Your task to perform on an android device: create a new album in the google photos Image 0: 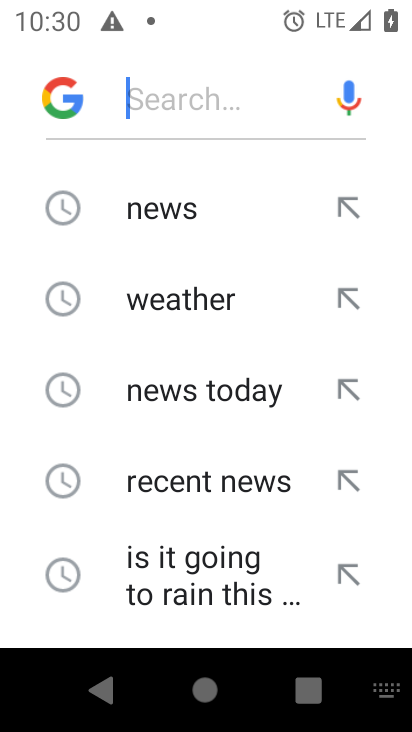
Step 0: press home button
Your task to perform on an android device: create a new album in the google photos Image 1: 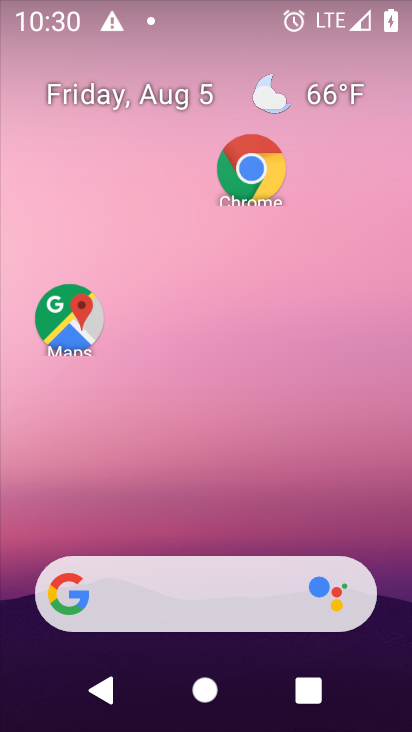
Step 1: drag from (179, 480) to (157, 125)
Your task to perform on an android device: create a new album in the google photos Image 2: 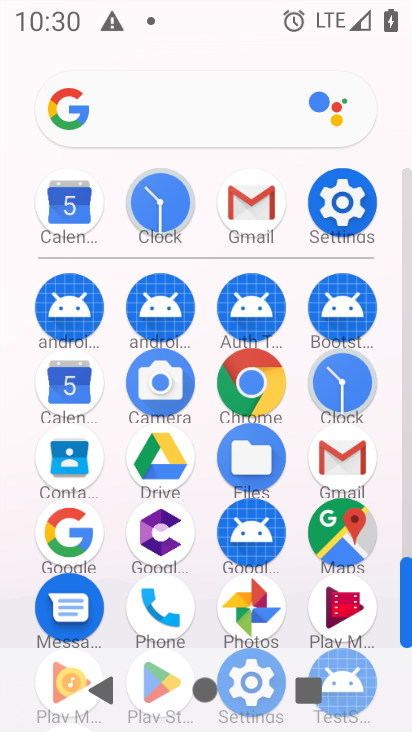
Step 2: click (232, 590)
Your task to perform on an android device: create a new album in the google photos Image 3: 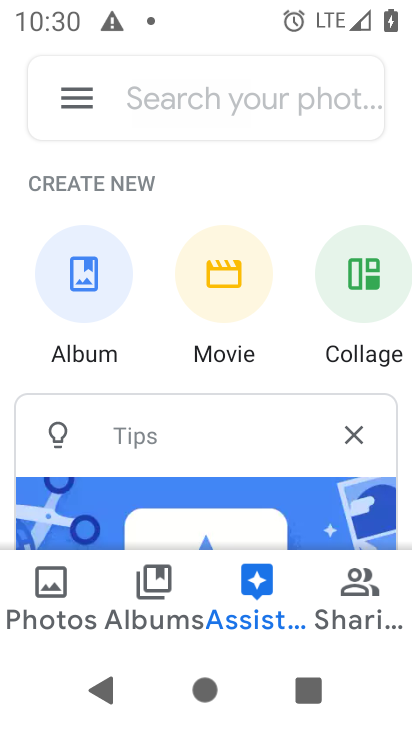
Step 3: click (60, 578)
Your task to perform on an android device: create a new album in the google photos Image 4: 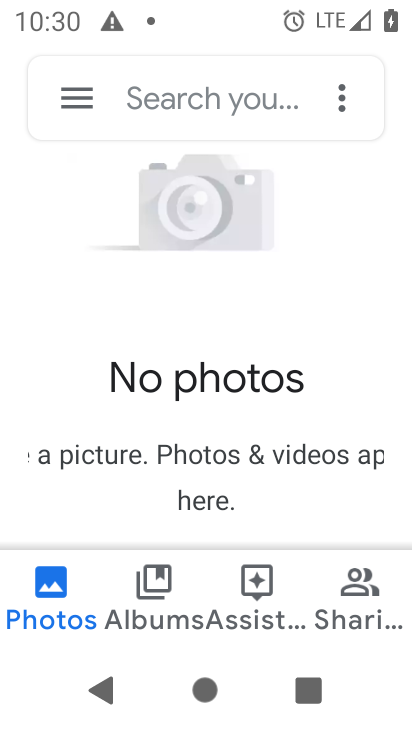
Step 4: click (343, 94)
Your task to perform on an android device: create a new album in the google photos Image 5: 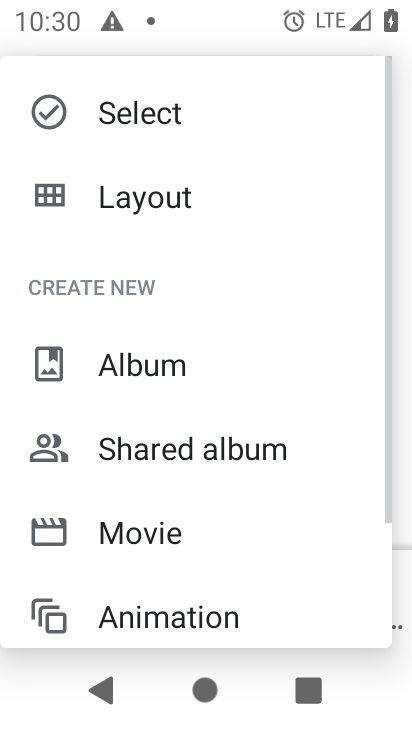
Step 5: click (117, 365)
Your task to perform on an android device: create a new album in the google photos Image 6: 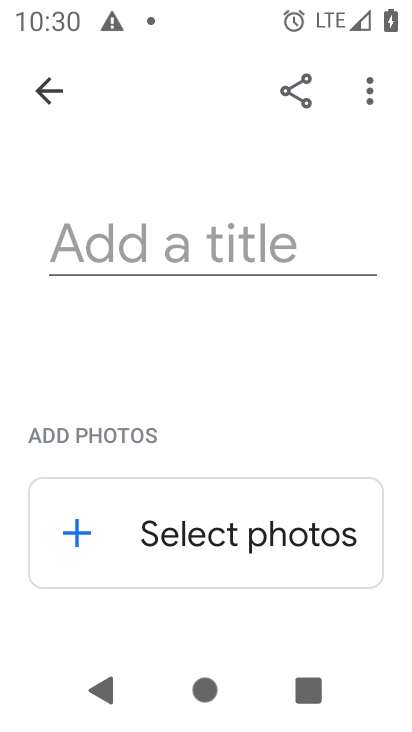
Step 6: click (77, 537)
Your task to perform on an android device: create a new album in the google photos Image 7: 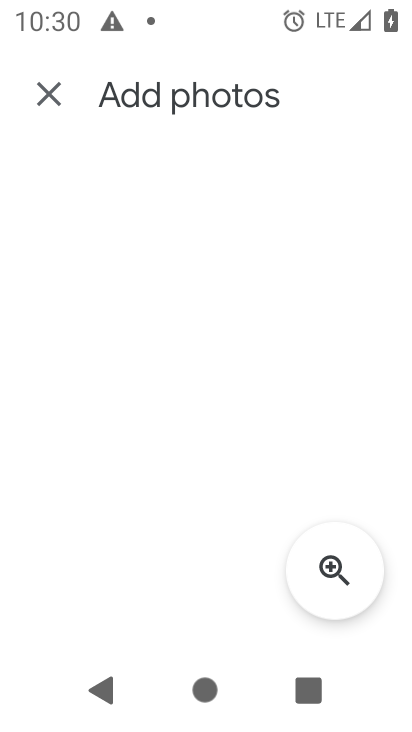
Step 7: click (52, 97)
Your task to perform on an android device: create a new album in the google photos Image 8: 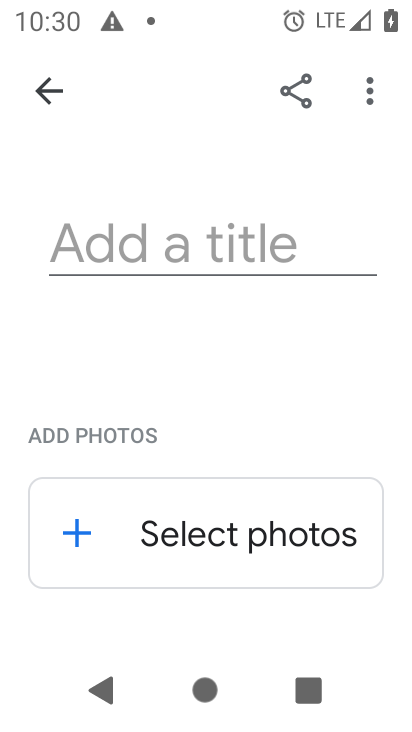
Step 8: click (139, 227)
Your task to perform on an android device: create a new album in the google photos Image 9: 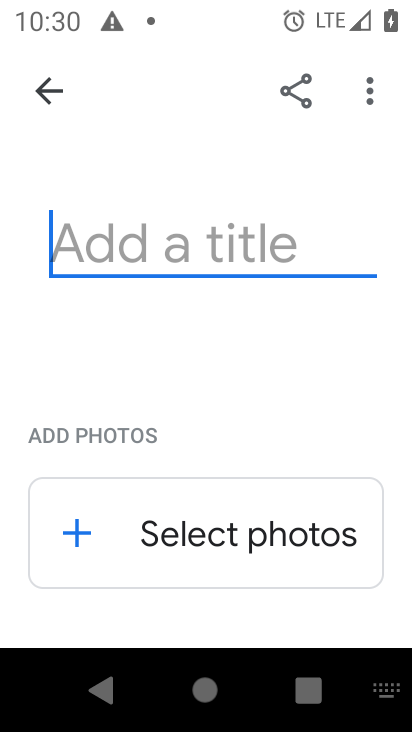
Step 9: type "hfhdgd"
Your task to perform on an android device: create a new album in the google photos Image 10: 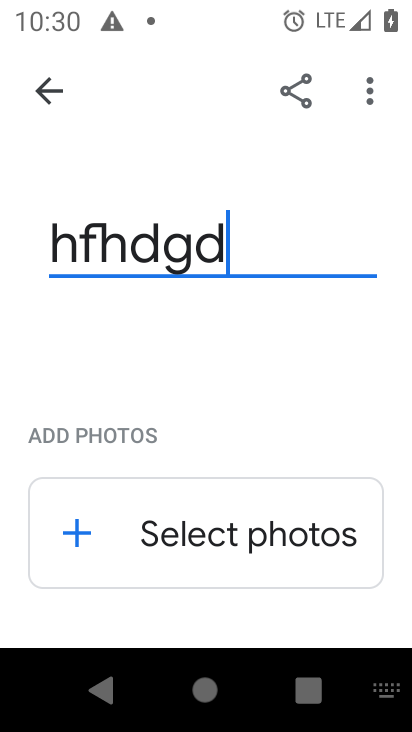
Step 10: click (379, 93)
Your task to perform on an android device: create a new album in the google photos Image 11: 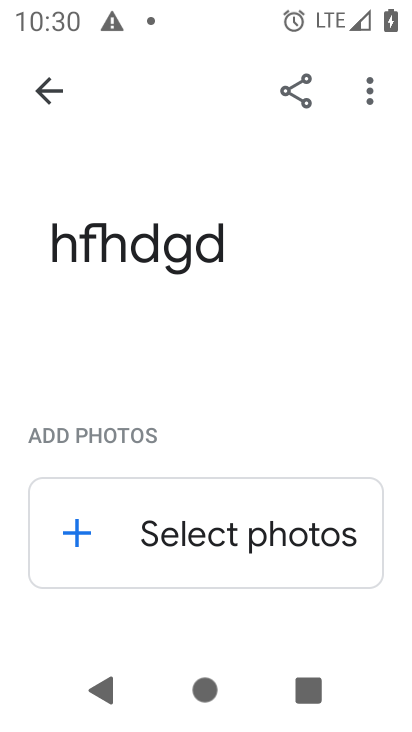
Step 11: click (373, 93)
Your task to perform on an android device: create a new album in the google photos Image 12: 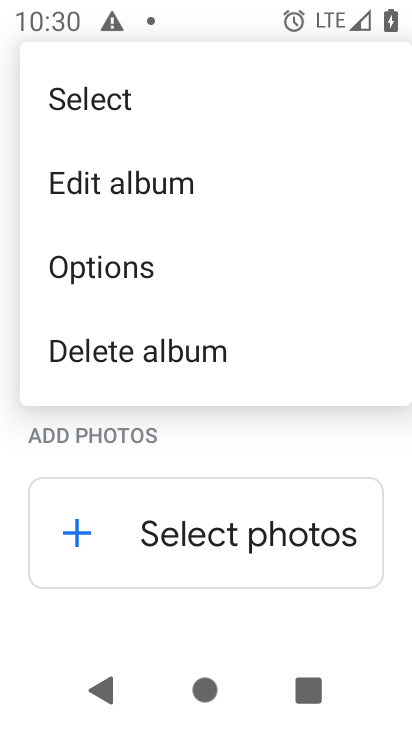
Step 12: click (146, 449)
Your task to perform on an android device: create a new album in the google photos Image 13: 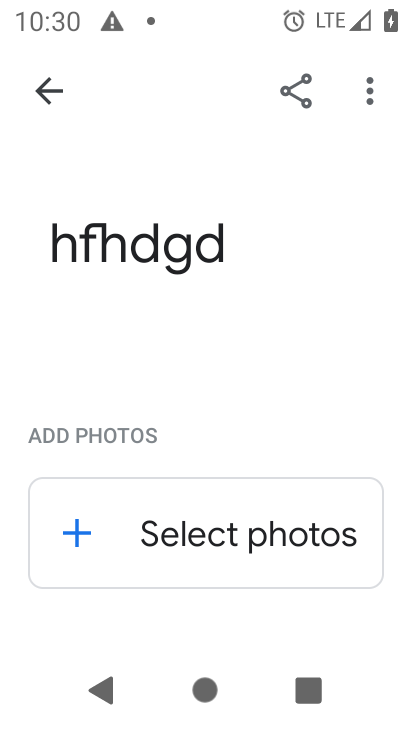
Step 13: click (65, 97)
Your task to perform on an android device: create a new album in the google photos Image 14: 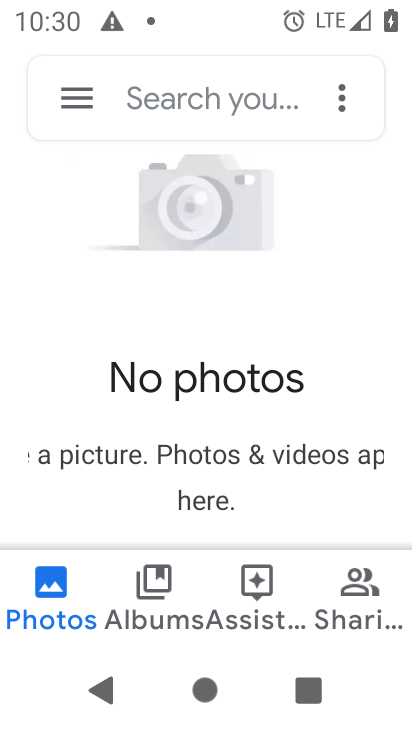
Step 14: task complete